Your task to perform on an android device: turn off picture-in-picture Image 0: 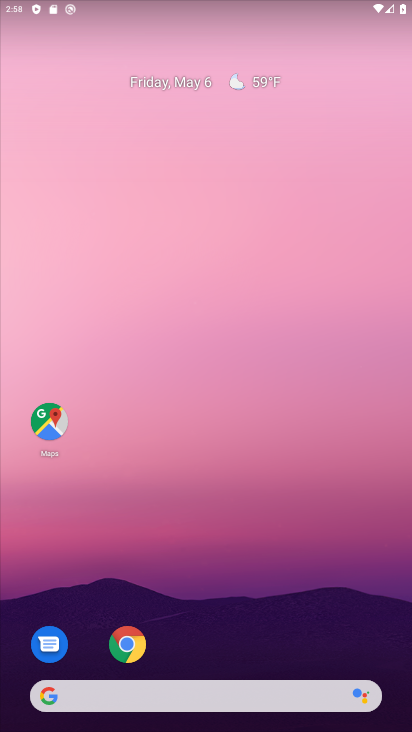
Step 0: drag from (212, 727) to (212, 278)
Your task to perform on an android device: turn off picture-in-picture Image 1: 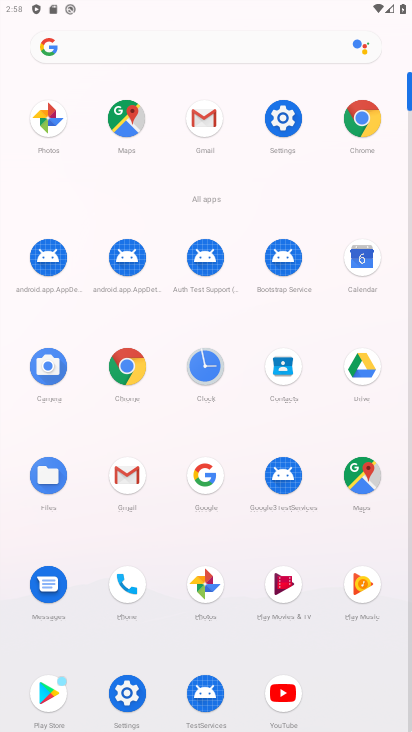
Step 1: click (278, 121)
Your task to perform on an android device: turn off picture-in-picture Image 2: 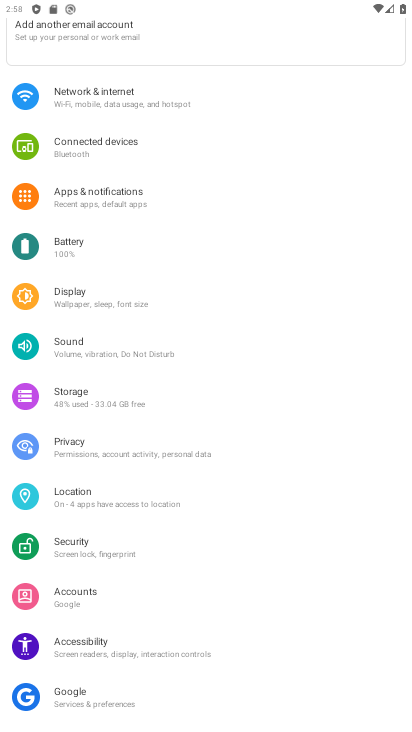
Step 2: click (128, 202)
Your task to perform on an android device: turn off picture-in-picture Image 3: 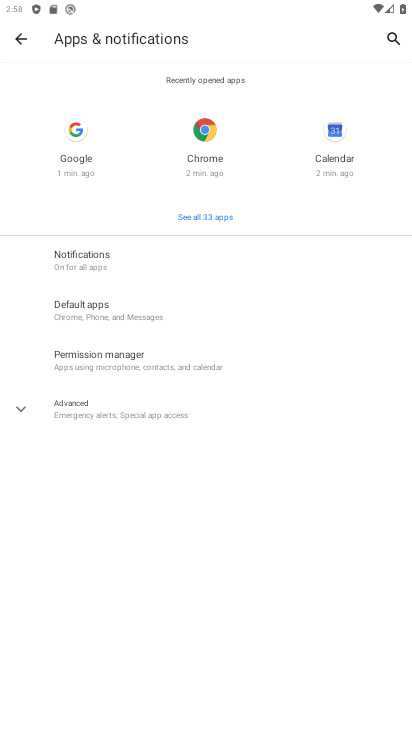
Step 3: click (62, 404)
Your task to perform on an android device: turn off picture-in-picture Image 4: 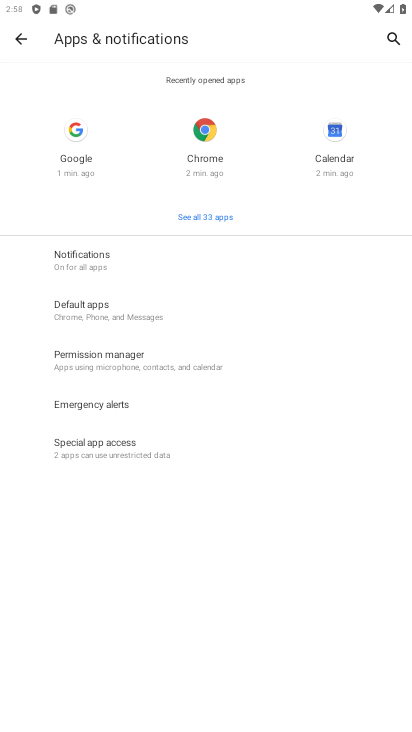
Step 4: click (103, 444)
Your task to perform on an android device: turn off picture-in-picture Image 5: 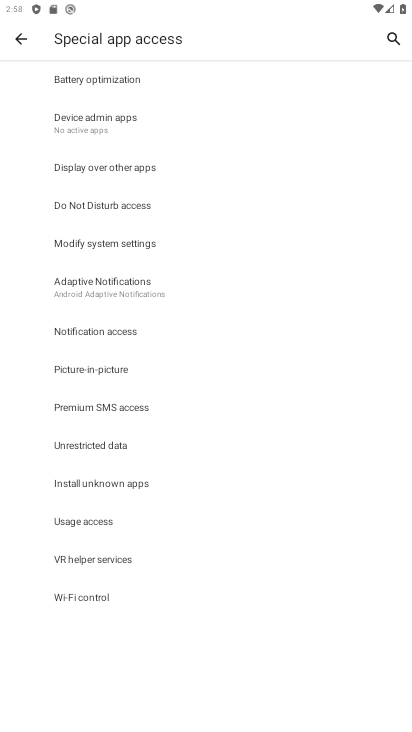
Step 5: click (110, 368)
Your task to perform on an android device: turn off picture-in-picture Image 6: 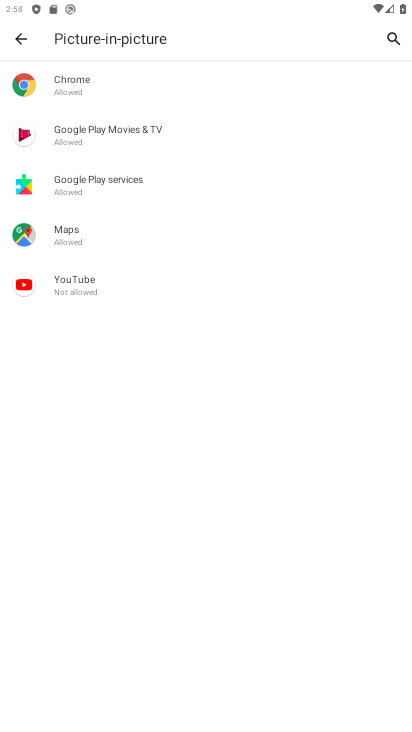
Step 6: click (71, 287)
Your task to perform on an android device: turn off picture-in-picture Image 7: 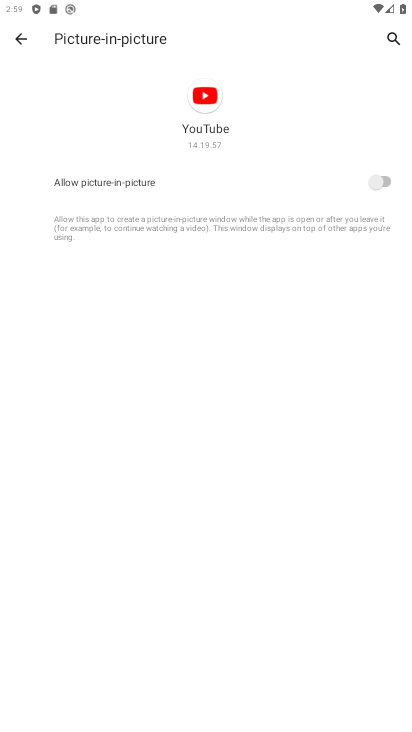
Step 7: task complete